Your task to perform on an android device: open the mobile data screen to see how much data has been used Image 0: 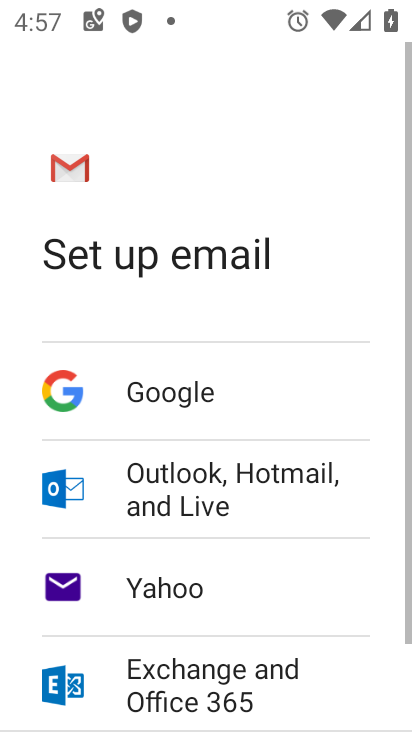
Step 0: press home button
Your task to perform on an android device: open the mobile data screen to see how much data has been used Image 1: 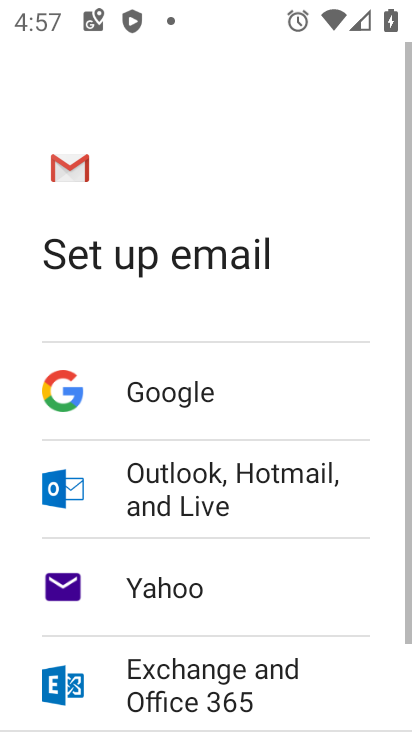
Step 1: press home button
Your task to perform on an android device: open the mobile data screen to see how much data has been used Image 2: 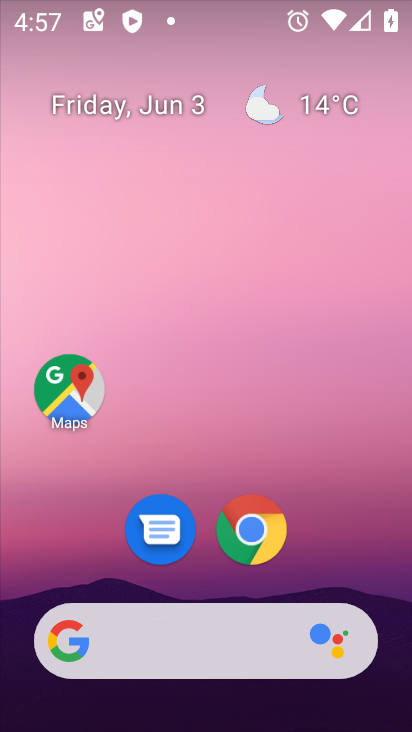
Step 2: drag from (213, 580) to (223, 1)
Your task to perform on an android device: open the mobile data screen to see how much data has been used Image 3: 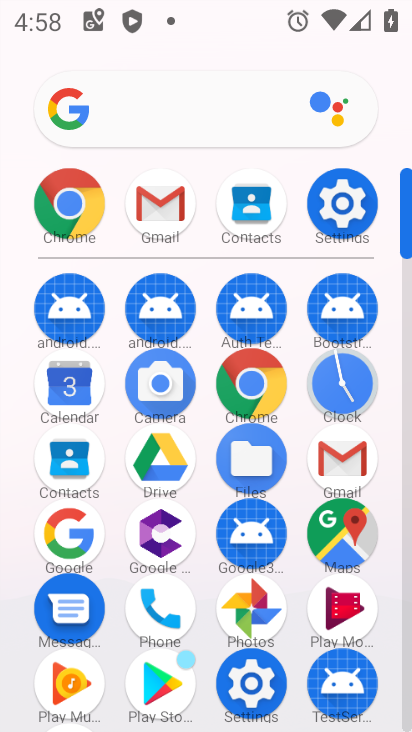
Step 3: click (341, 202)
Your task to perform on an android device: open the mobile data screen to see how much data has been used Image 4: 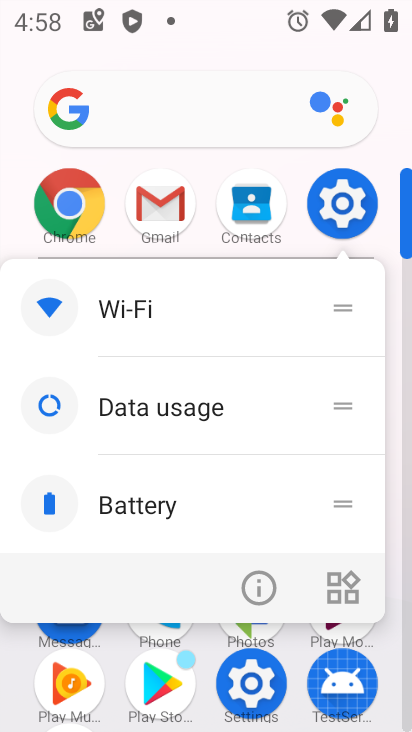
Step 4: click (341, 202)
Your task to perform on an android device: open the mobile data screen to see how much data has been used Image 5: 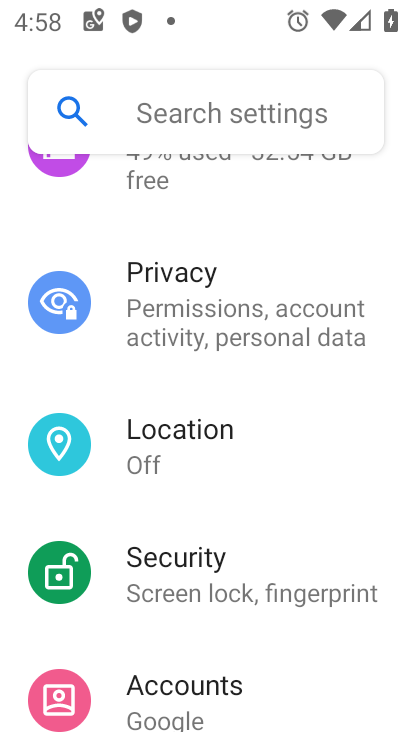
Step 5: drag from (214, 184) to (260, 678)
Your task to perform on an android device: open the mobile data screen to see how much data has been used Image 6: 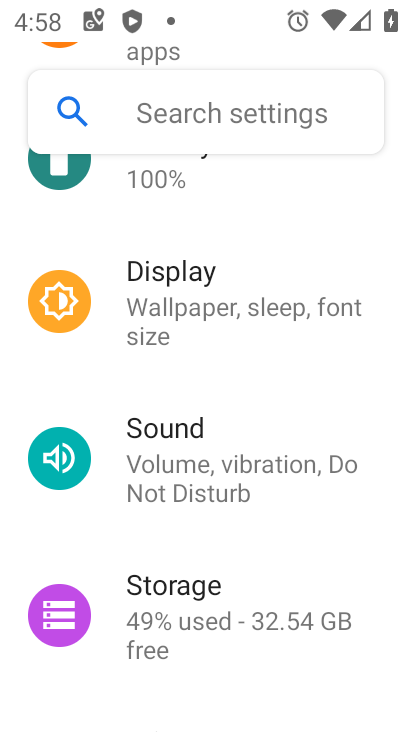
Step 6: drag from (209, 221) to (207, 704)
Your task to perform on an android device: open the mobile data screen to see how much data has been used Image 7: 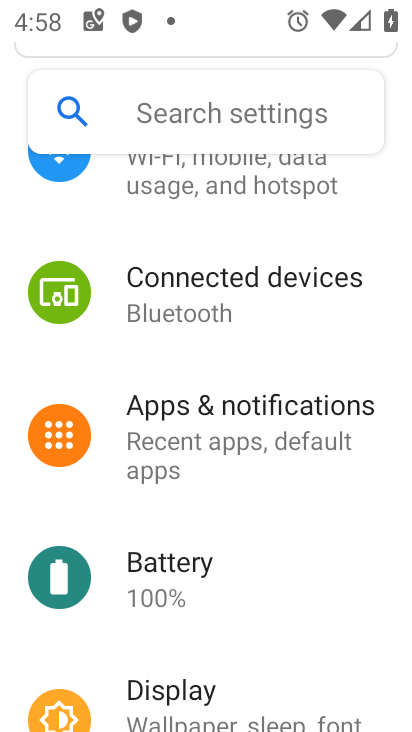
Step 7: click (230, 182)
Your task to perform on an android device: open the mobile data screen to see how much data has been used Image 8: 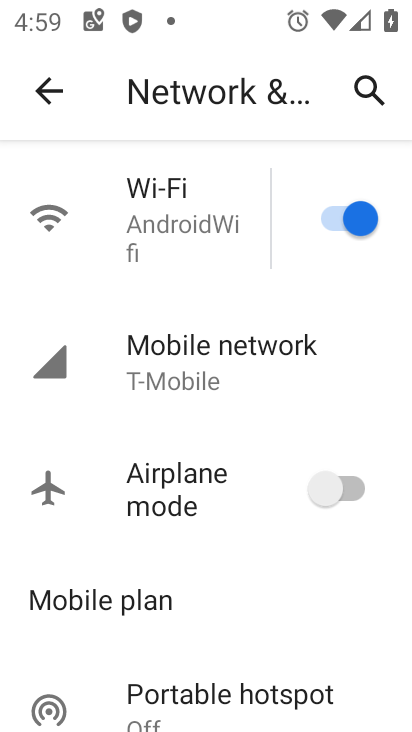
Step 8: click (249, 353)
Your task to perform on an android device: open the mobile data screen to see how much data has been used Image 9: 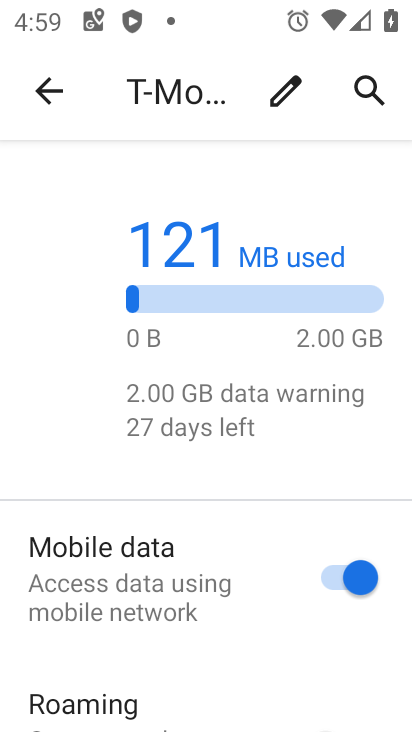
Step 9: drag from (176, 674) to (198, 225)
Your task to perform on an android device: open the mobile data screen to see how much data has been used Image 10: 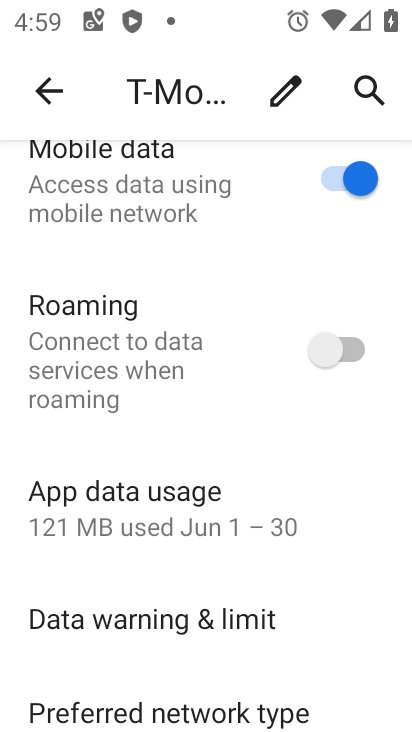
Step 10: click (274, 500)
Your task to perform on an android device: open the mobile data screen to see how much data has been used Image 11: 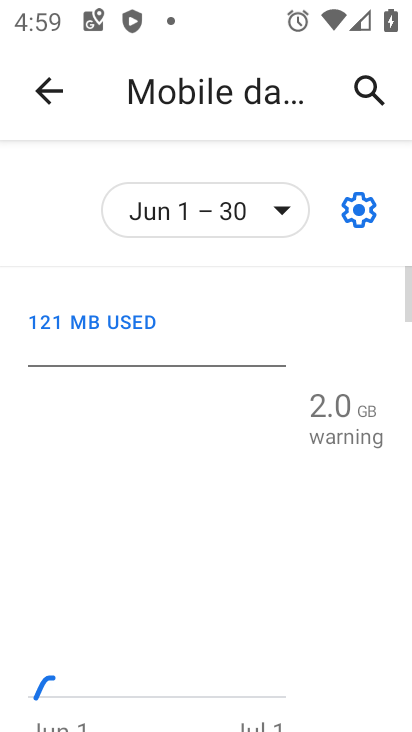
Step 11: task complete